Your task to perform on an android device: Open Yahoo.com Image 0: 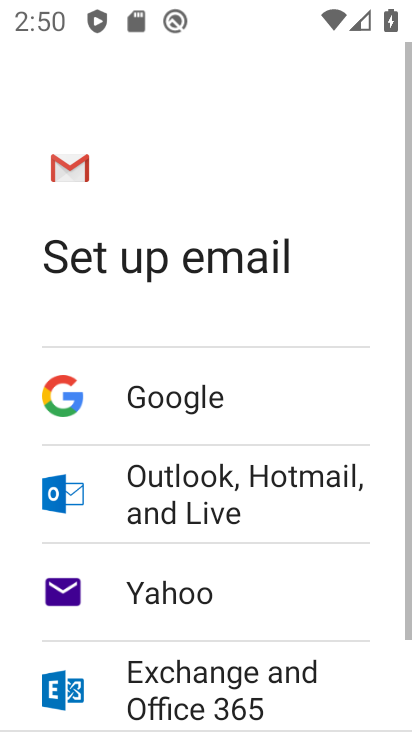
Step 0: press home button
Your task to perform on an android device: Open Yahoo.com Image 1: 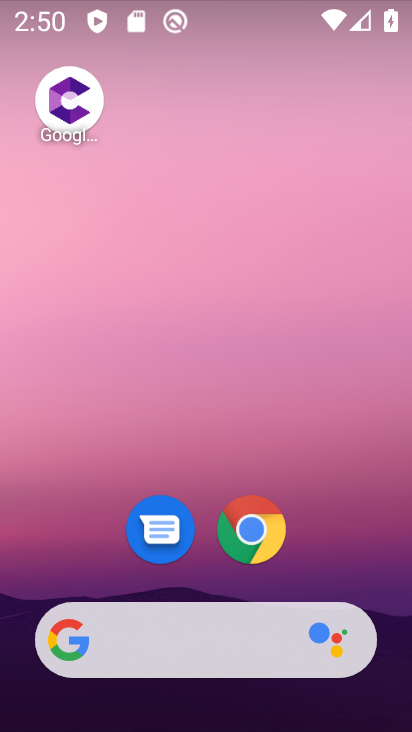
Step 1: click (255, 529)
Your task to perform on an android device: Open Yahoo.com Image 2: 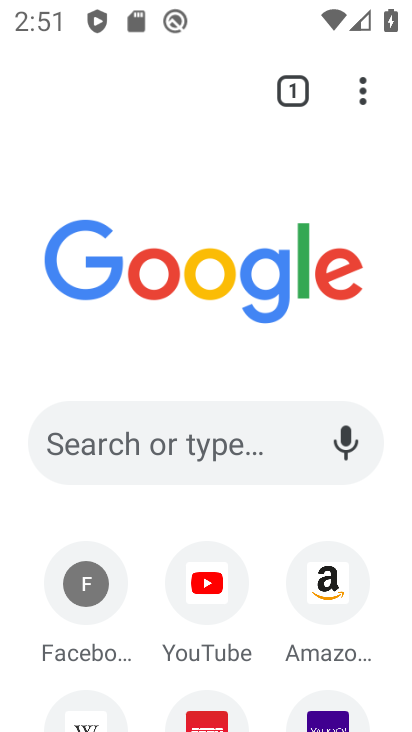
Step 2: click (198, 450)
Your task to perform on an android device: Open Yahoo.com Image 3: 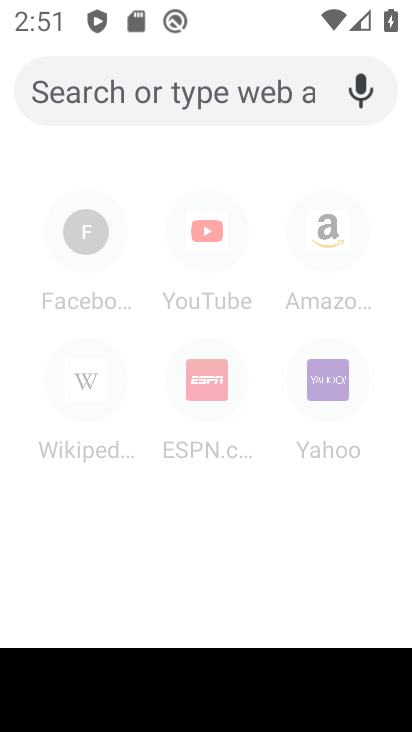
Step 3: type "Yahoo.com"
Your task to perform on an android device: Open Yahoo.com Image 4: 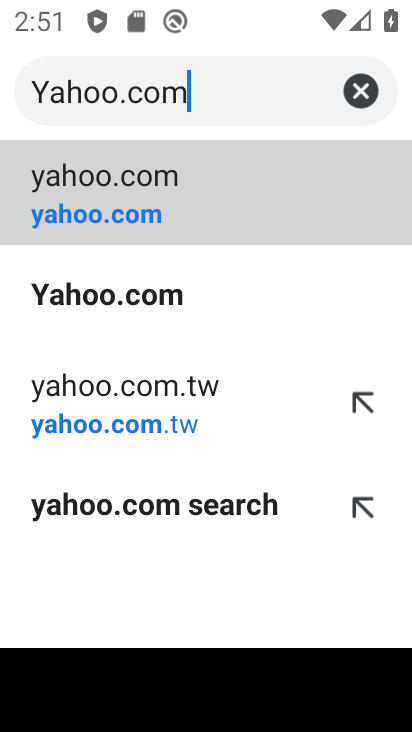
Step 4: click (166, 290)
Your task to perform on an android device: Open Yahoo.com Image 5: 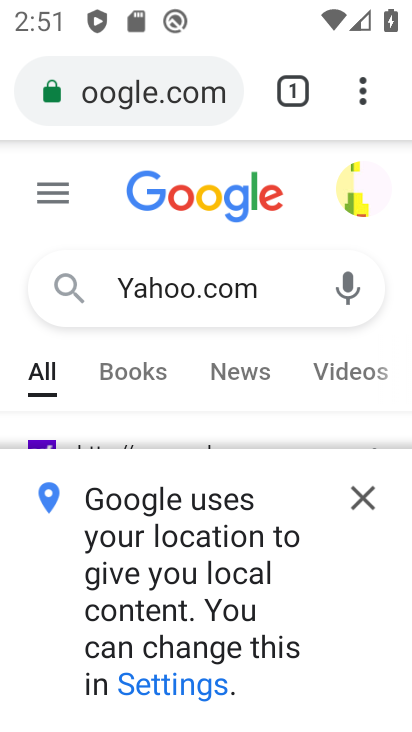
Step 5: click (364, 501)
Your task to perform on an android device: Open Yahoo.com Image 6: 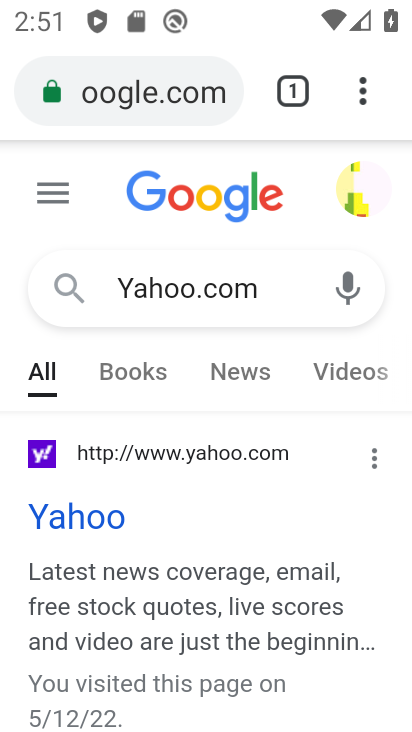
Step 6: click (98, 509)
Your task to perform on an android device: Open Yahoo.com Image 7: 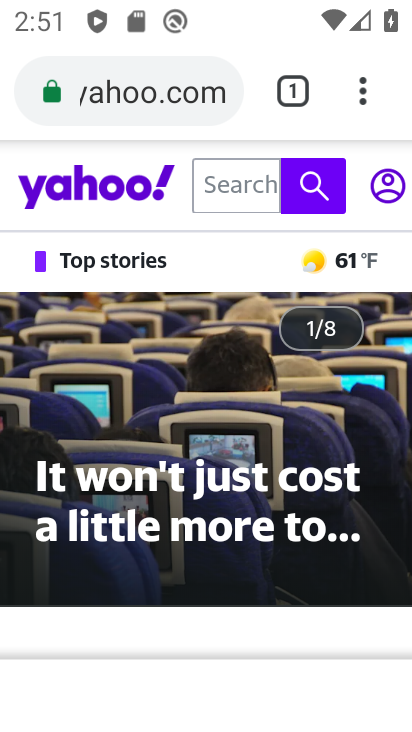
Step 7: task complete